Your task to perform on an android device: Open the phone app and click the voicemail tab. Image 0: 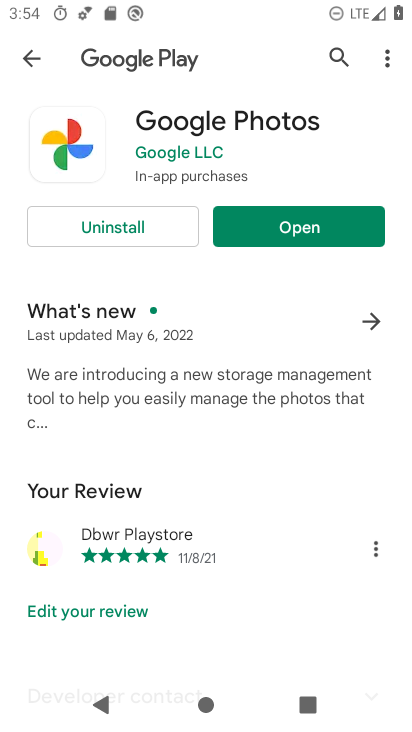
Step 0: press home button
Your task to perform on an android device: Open the phone app and click the voicemail tab. Image 1: 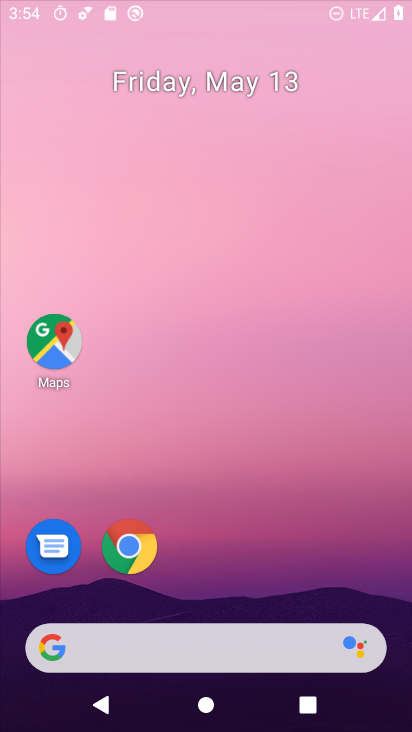
Step 1: drag from (252, 640) to (335, 3)
Your task to perform on an android device: Open the phone app and click the voicemail tab. Image 2: 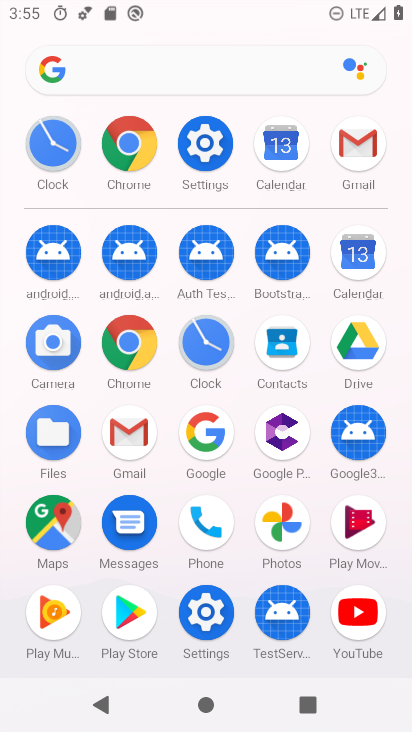
Step 2: click (219, 522)
Your task to perform on an android device: Open the phone app and click the voicemail tab. Image 3: 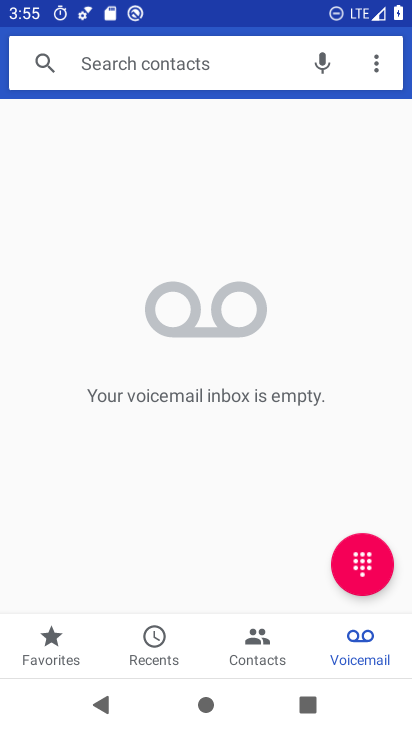
Step 3: task complete